Your task to perform on an android device: Open Google Chrome Image 0: 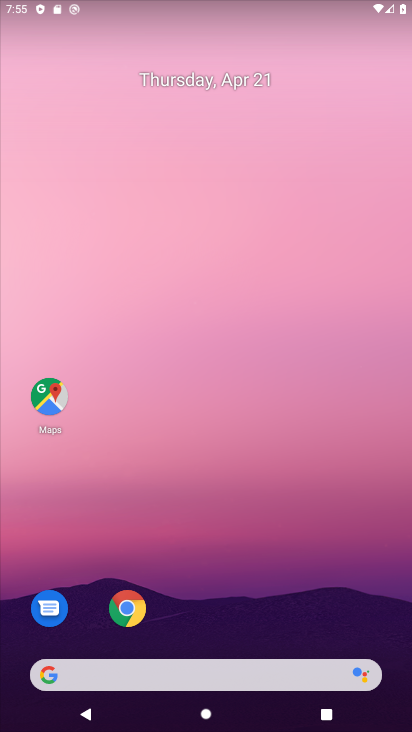
Step 0: click (135, 613)
Your task to perform on an android device: Open Google Chrome Image 1: 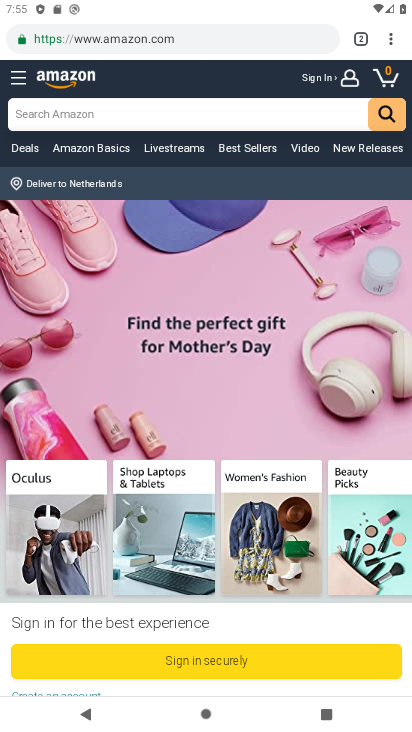
Step 1: task complete